Your task to perform on an android device: change the clock display to show seconds Image 0: 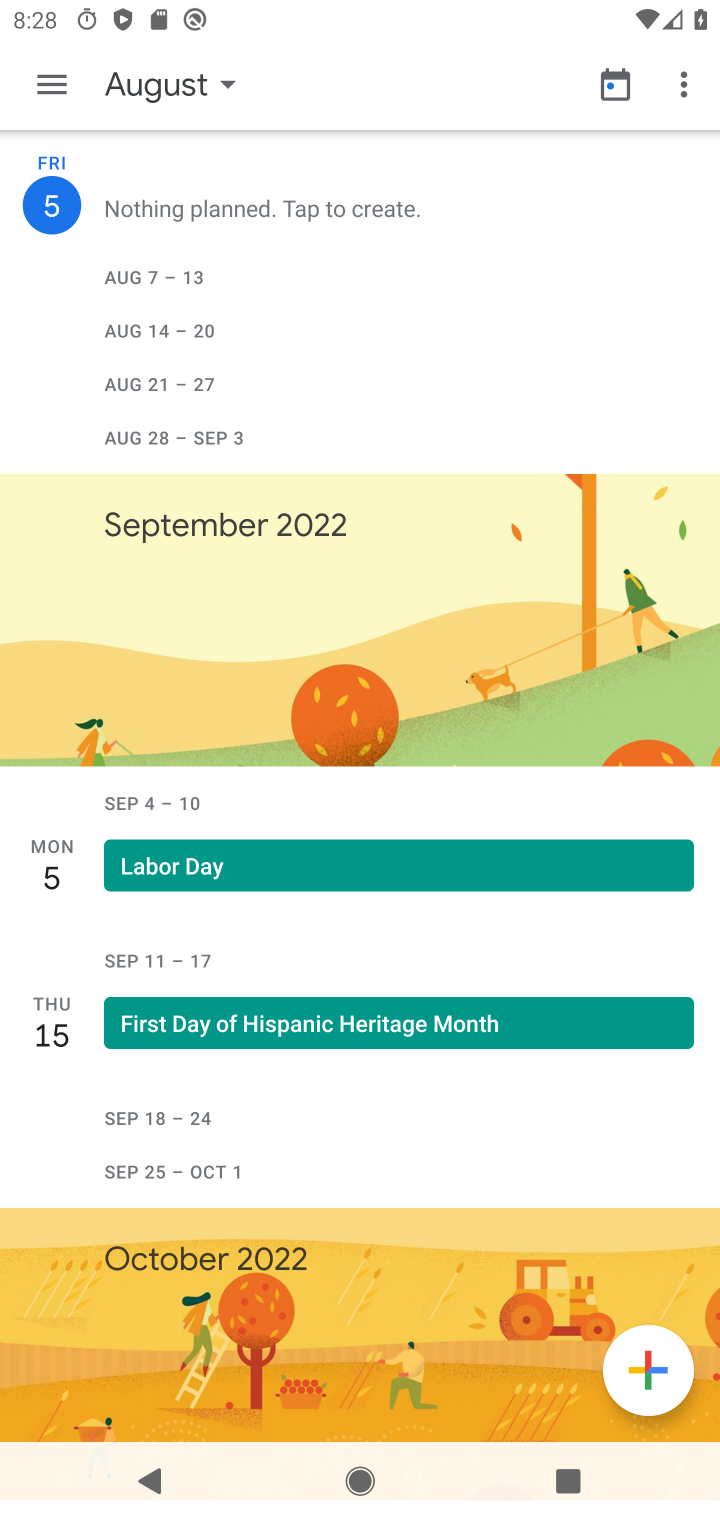
Step 0: press home button
Your task to perform on an android device: change the clock display to show seconds Image 1: 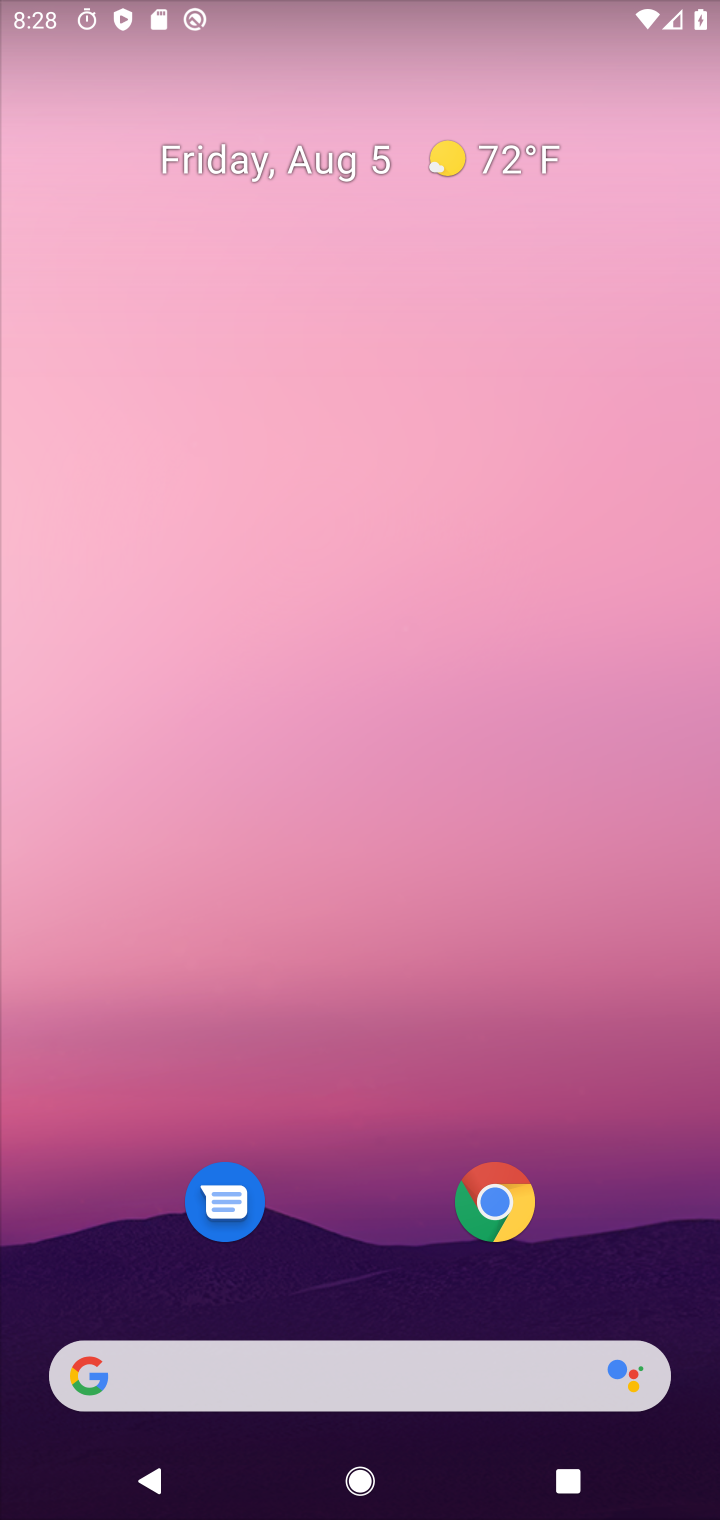
Step 1: drag from (375, 1147) to (399, 389)
Your task to perform on an android device: change the clock display to show seconds Image 2: 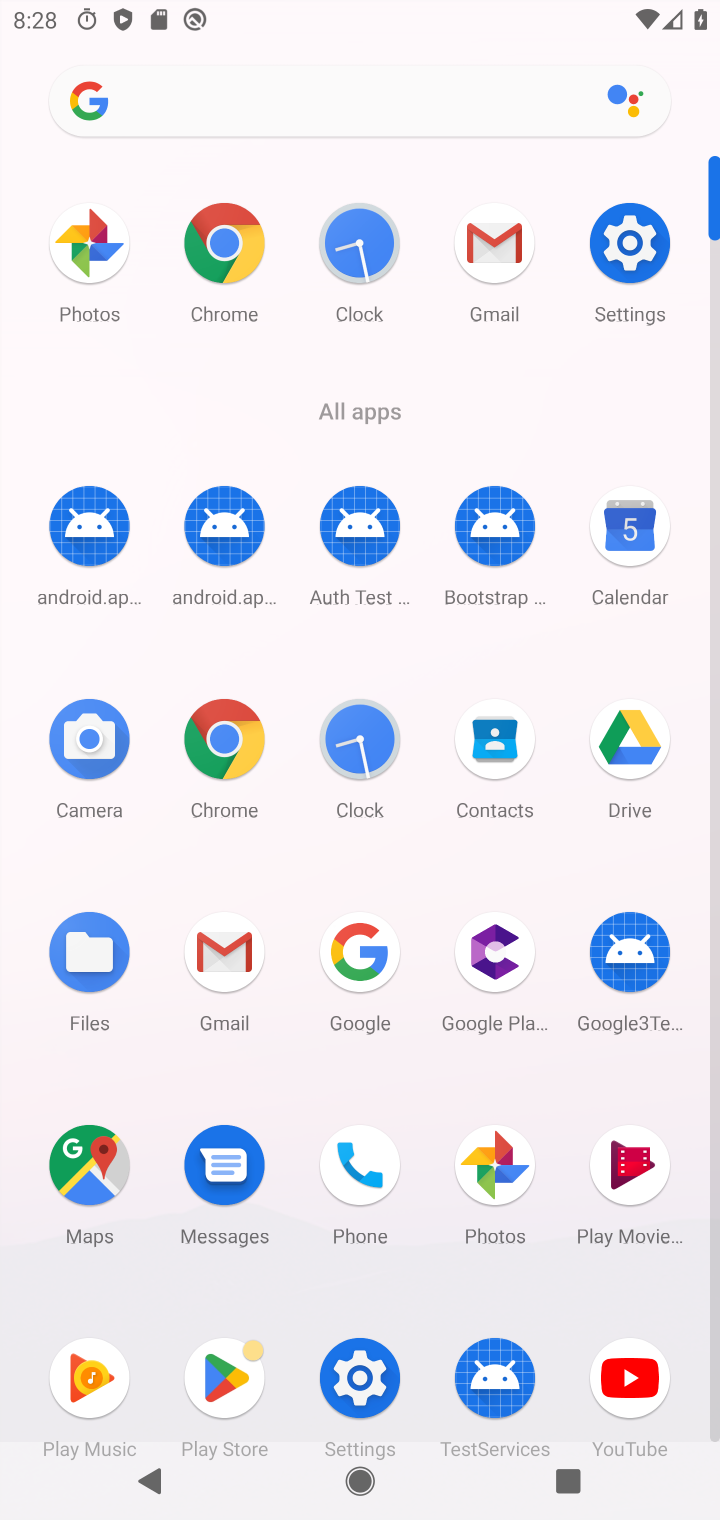
Step 2: click (334, 252)
Your task to perform on an android device: change the clock display to show seconds Image 3: 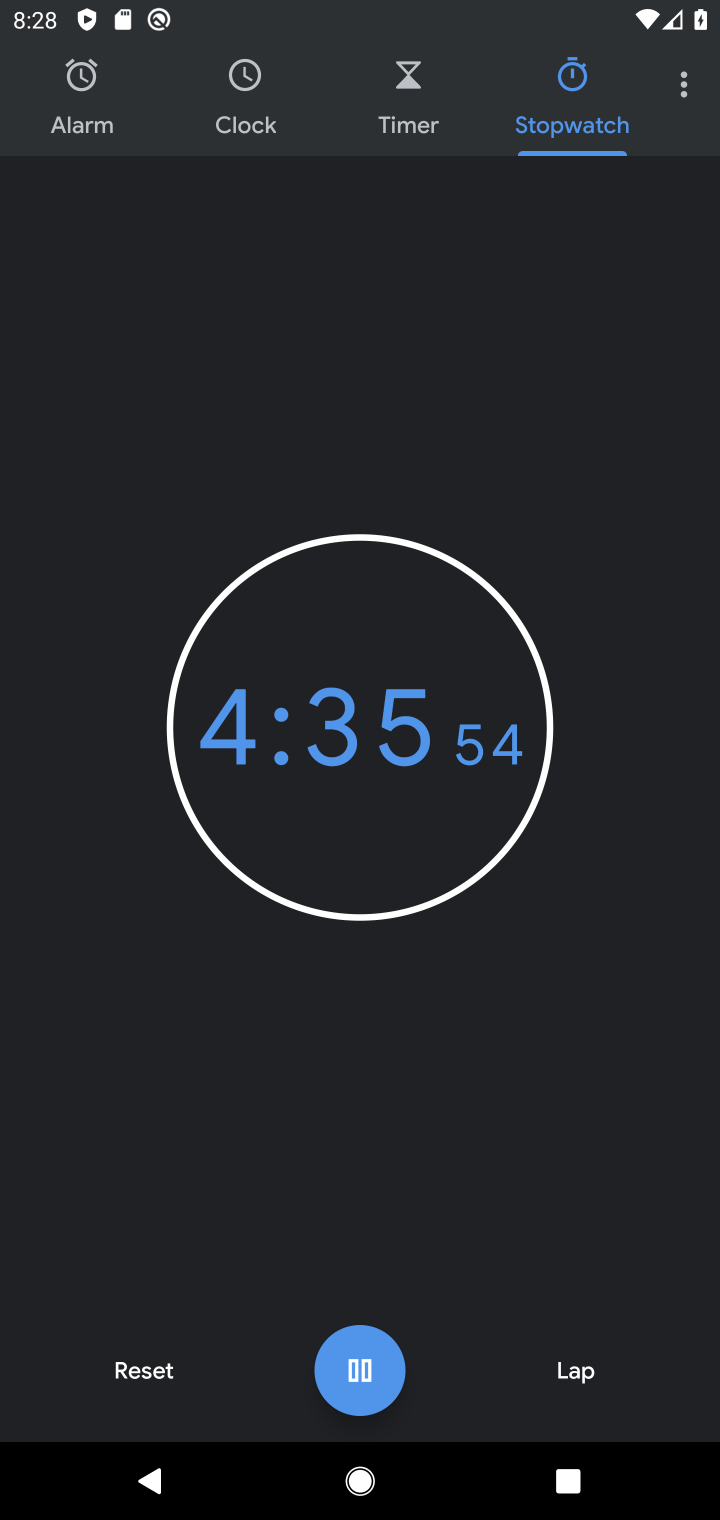
Step 3: click (668, 81)
Your task to perform on an android device: change the clock display to show seconds Image 4: 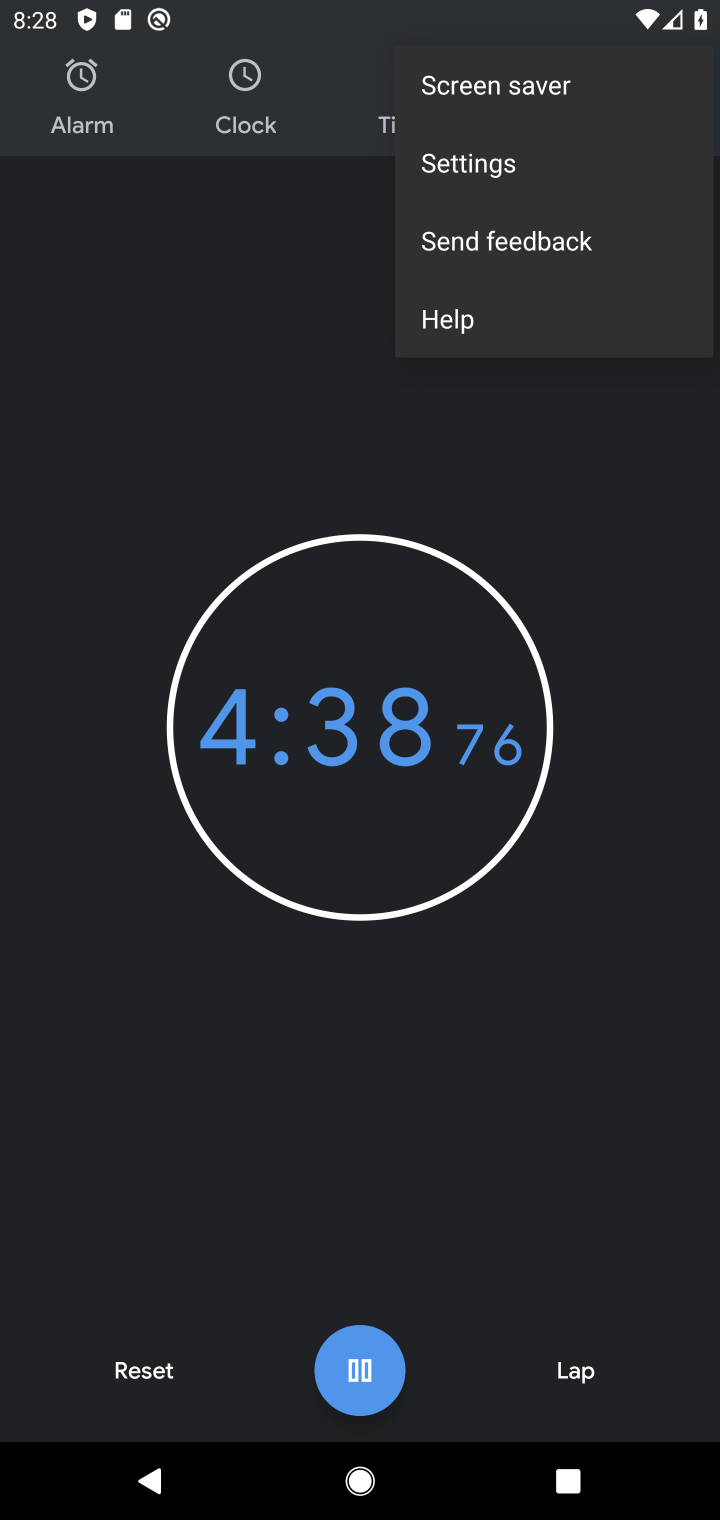
Step 4: click (528, 158)
Your task to perform on an android device: change the clock display to show seconds Image 5: 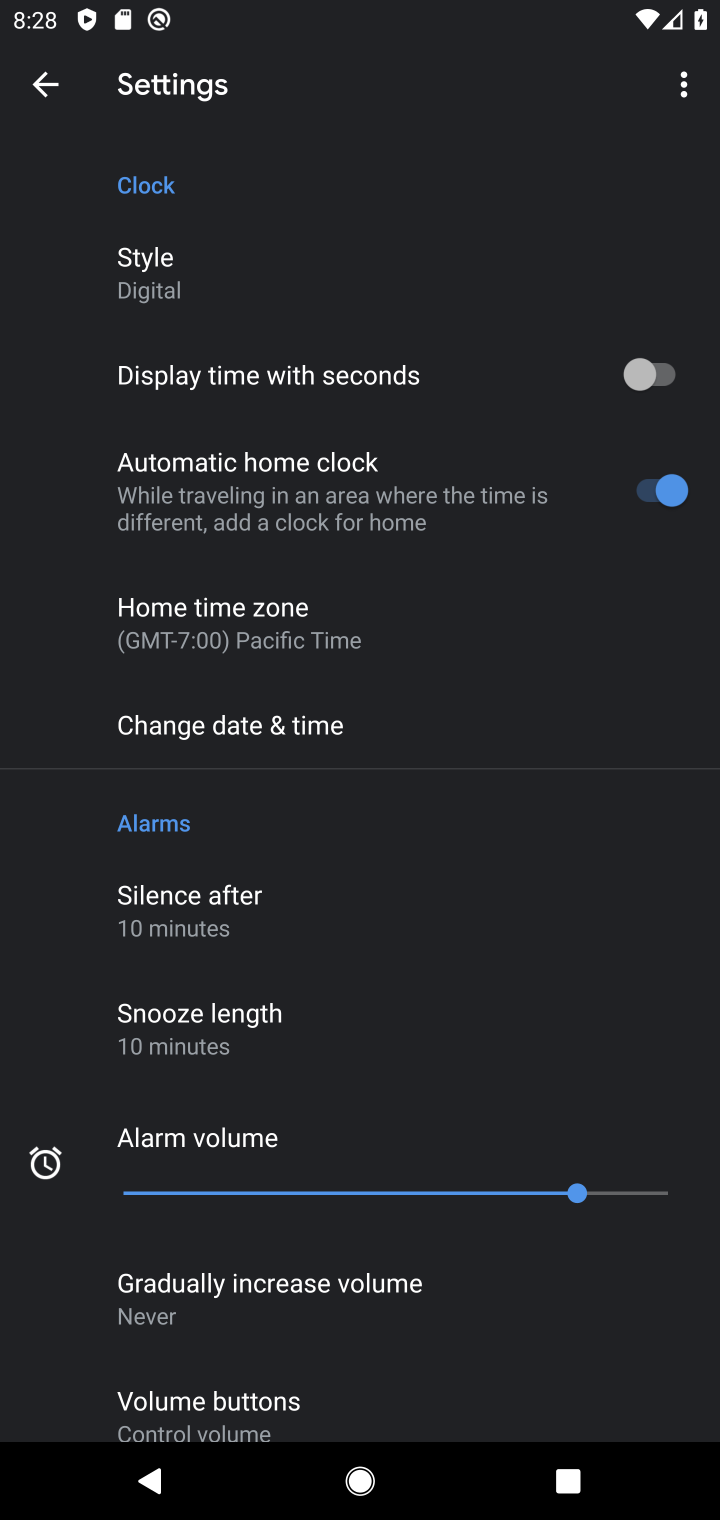
Step 5: click (667, 359)
Your task to perform on an android device: change the clock display to show seconds Image 6: 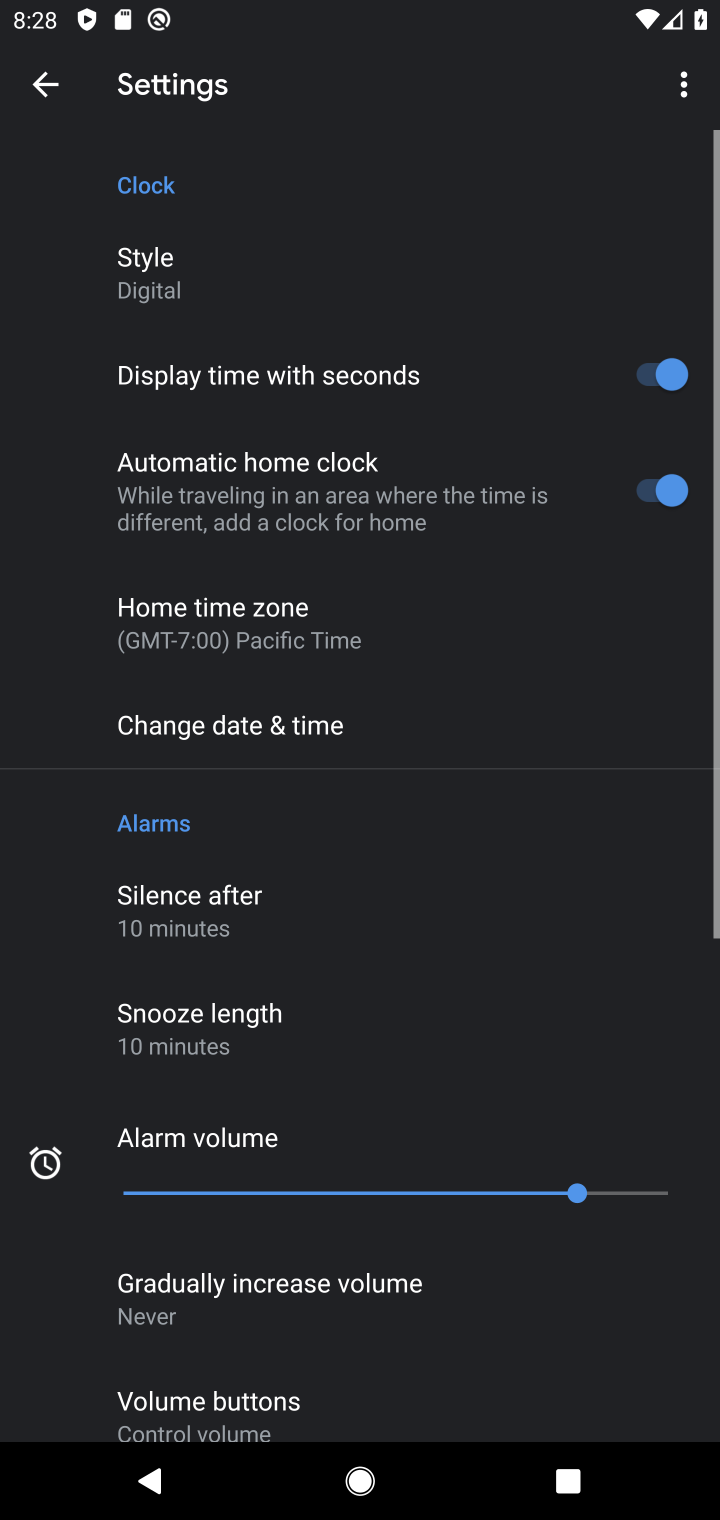
Step 6: task complete